Your task to perform on an android device: stop showing notifications on the lock screen Image 0: 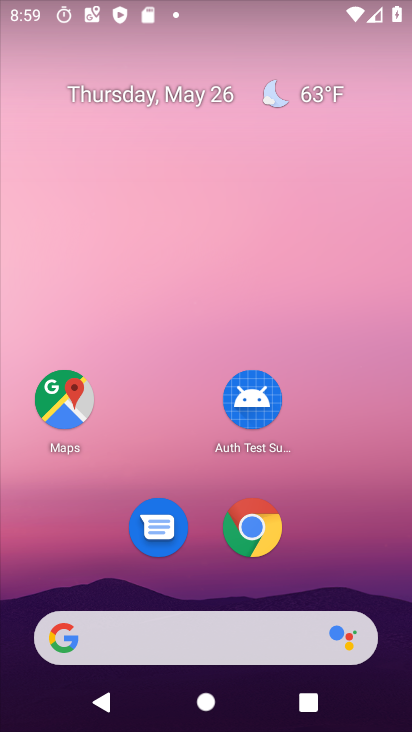
Step 0: drag from (382, 553) to (341, 76)
Your task to perform on an android device: stop showing notifications on the lock screen Image 1: 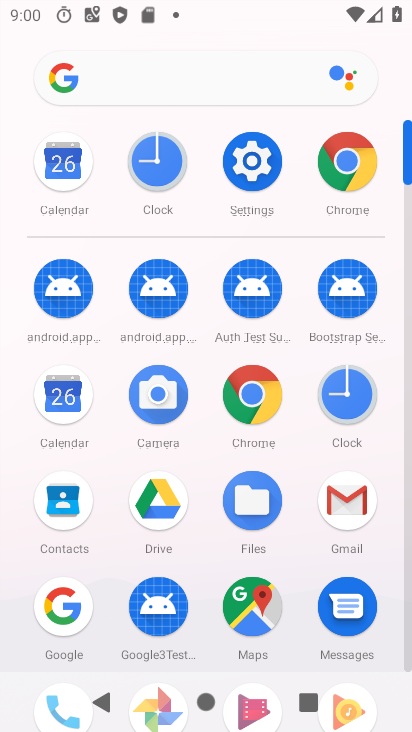
Step 1: click (248, 147)
Your task to perform on an android device: stop showing notifications on the lock screen Image 2: 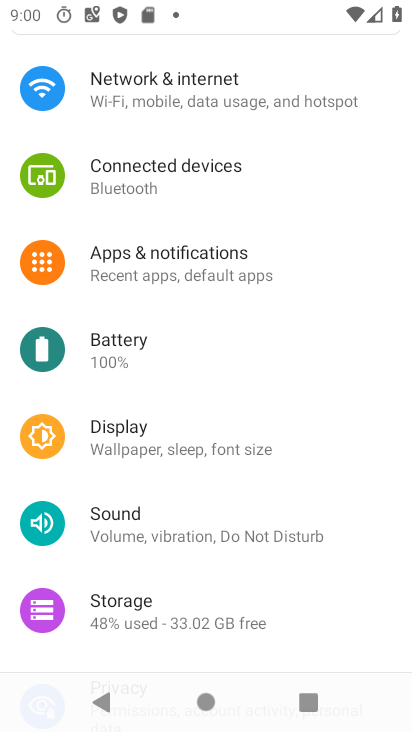
Step 2: click (231, 282)
Your task to perform on an android device: stop showing notifications on the lock screen Image 3: 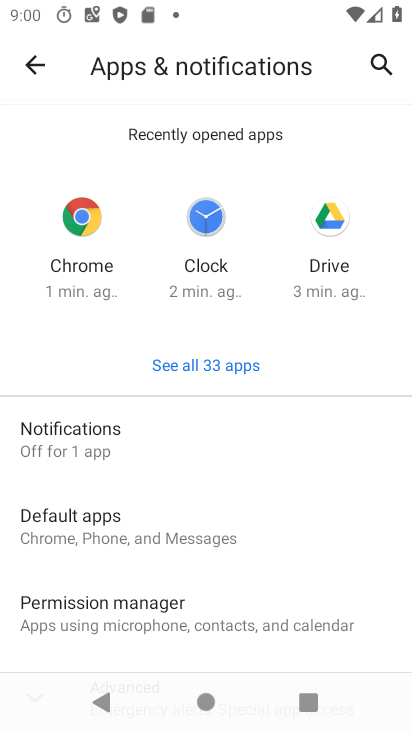
Step 3: click (71, 434)
Your task to perform on an android device: stop showing notifications on the lock screen Image 4: 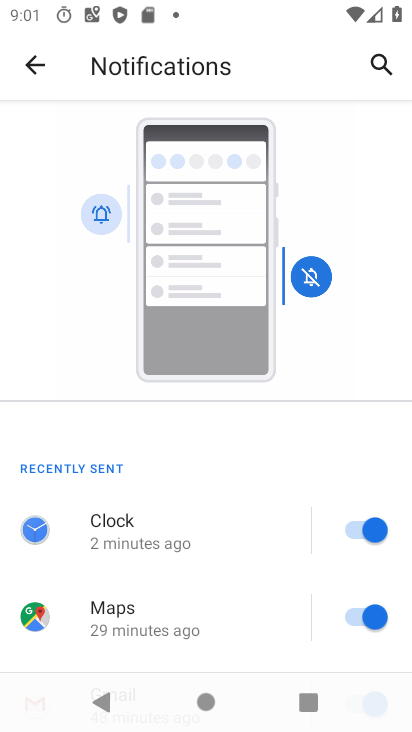
Step 4: drag from (144, 551) to (169, 228)
Your task to perform on an android device: stop showing notifications on the lock screen Image 5: 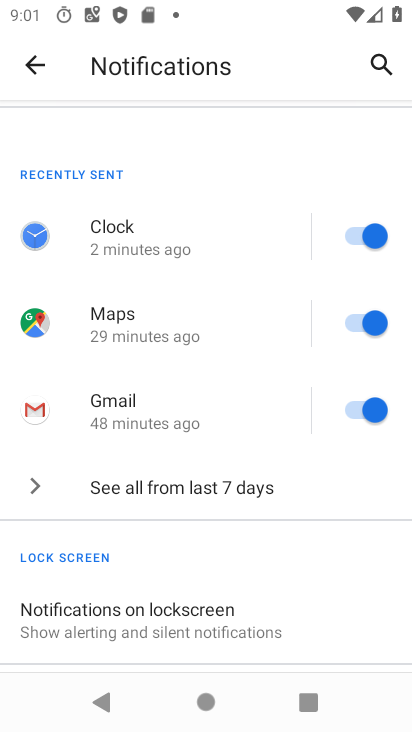
Step 5: click (177, 621)
Your task to perform on an android device: stop showing notifications on the lock screen Image 6: 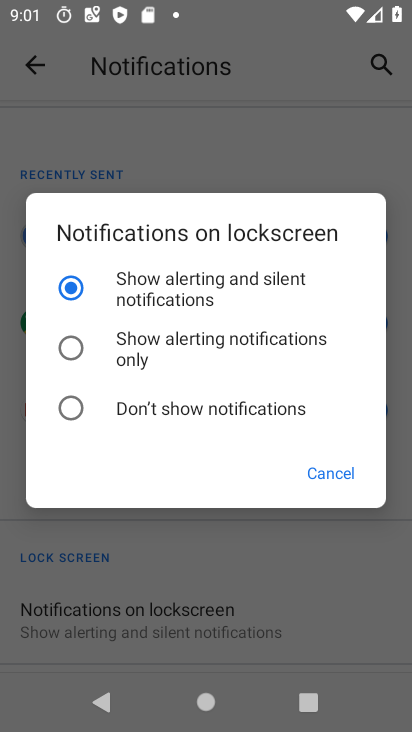
Step 6: click (82, 413)
Your task to perform on an android device: stop showing notifications on the lock screen Image 7: 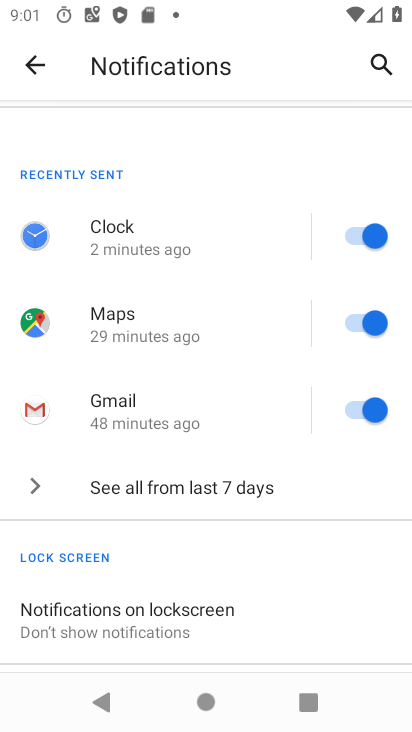
Step 7: task complete